Your task to perform on an android device: turn off priority inbox in the gmail app Image 0: 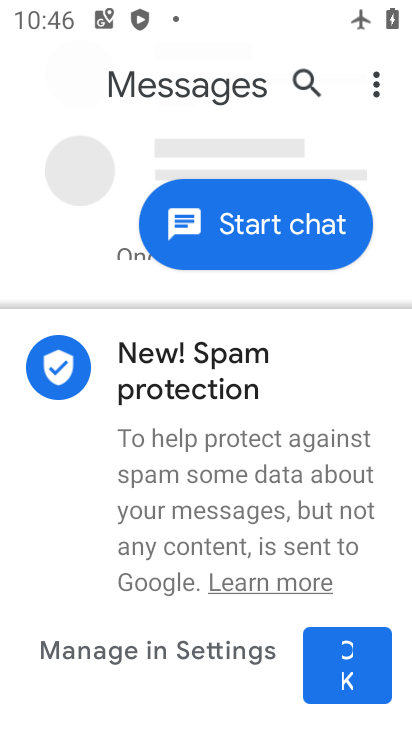
Step 0: press home button
Your task to perform on an android device: turn off priority inbox in the gmail app Image 1: 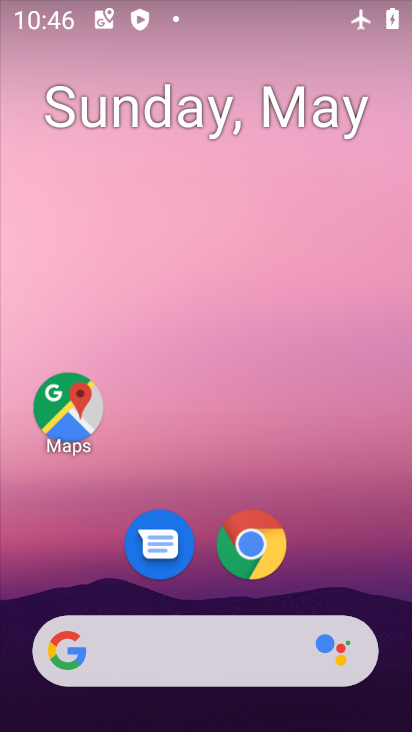
Step 1: drag from (344, 514) to (341, 257)
Your task to perform on an android device: turn off priority inbox in the gmail app Image 2: 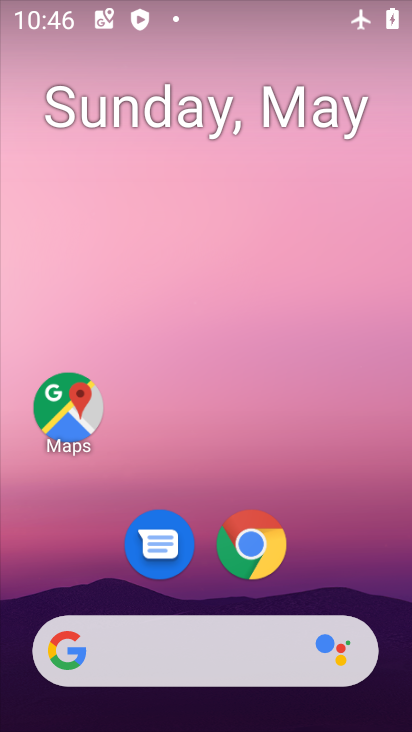
Step 2: drag from (322, 581) to (320, 317)
Your task to perform on an android device: turn off priority inbox in the gmail app Image 3: 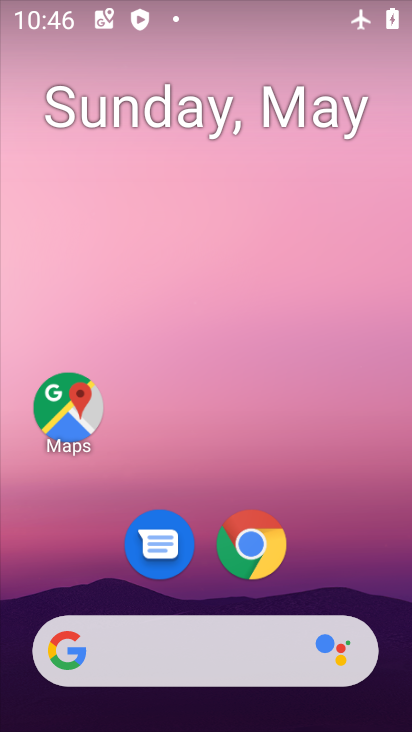
Step 3: drag from (306, 577) to (294, 344)
Your task to perform on an android device: turn off priority inbox in the gmail app Image 4: 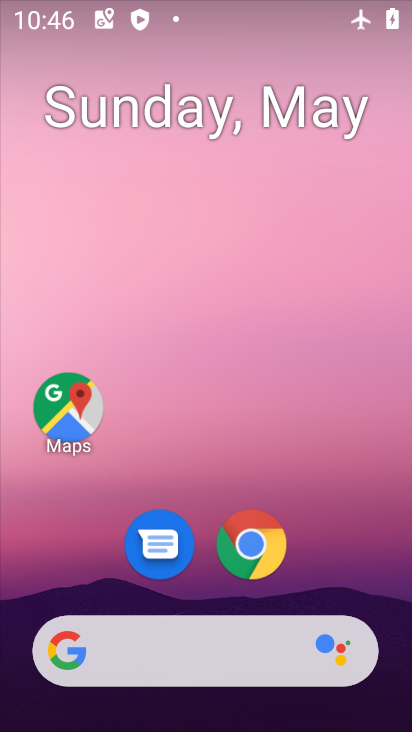
Step 4: drag from (264, 473) to (264, 319)
Your task to perform on an android device: turn off priority inbox in the gmail app Image 5: 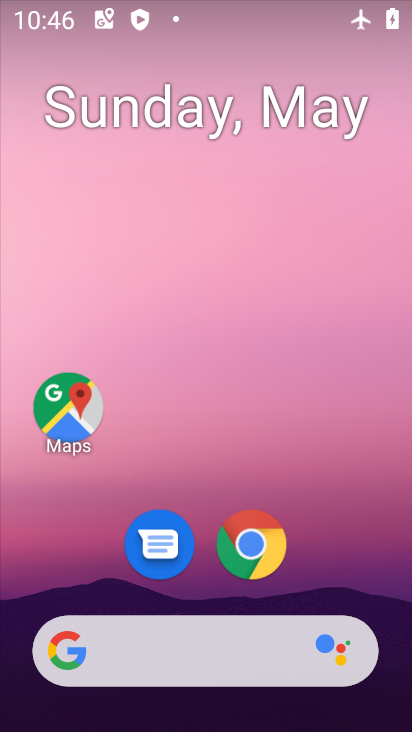
Step 5: click (259, 144)
Your task to perform on an android device: turn off priority inbox in the gmail app Image 6: 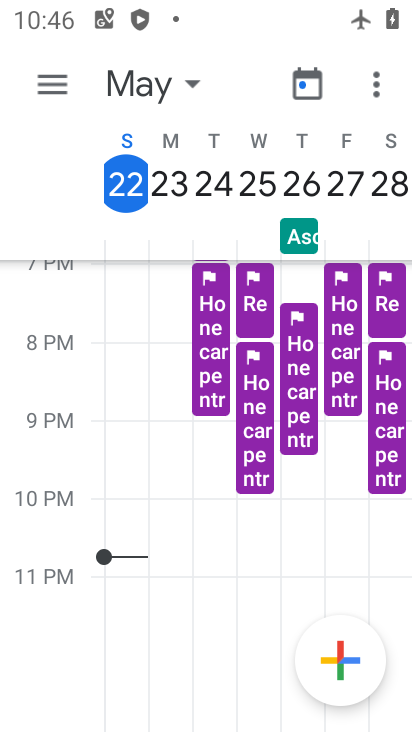
Step 6: drag from (279, 621) to (329, 285)
Your task to perform on an android device: turn off priority inbox in the gmail app Image 7: 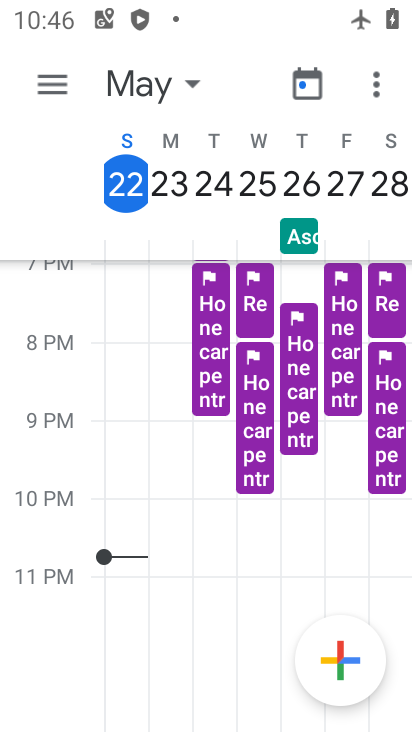
Step 7: press home button
Your task to perform on an android device: turn off priority inbox in the gmail app Image 8: 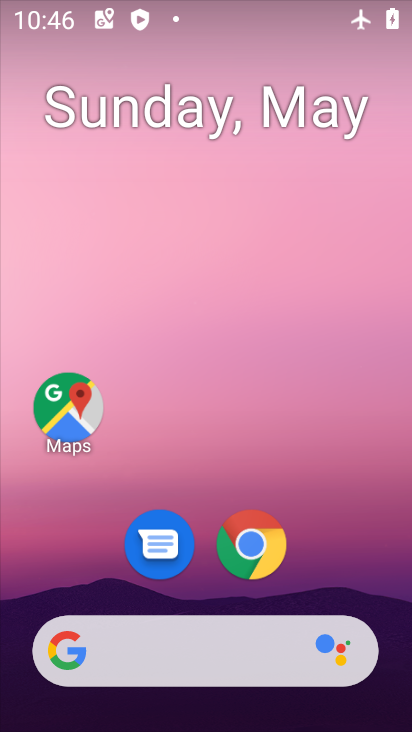
Step 8: drag from (293, 577) to (295, 305)
Your task to perform on an android device: turn off priority inbox in the gmail app Image 9: 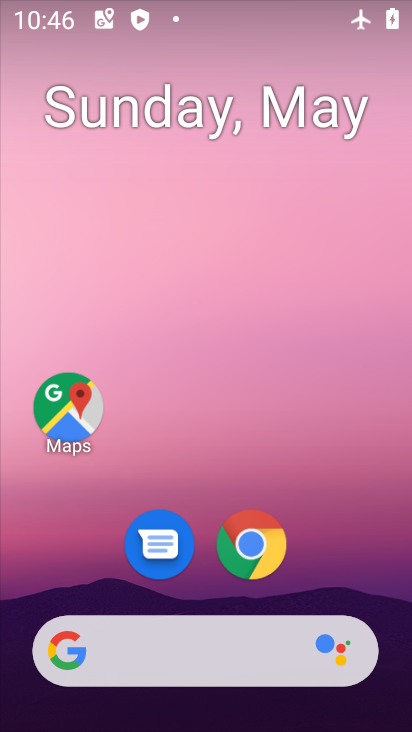
Step 9: drag from (302, 583) to (303, 304)
Your task to perform on an android device: turn off priority inbox in the gmail app Image 10: 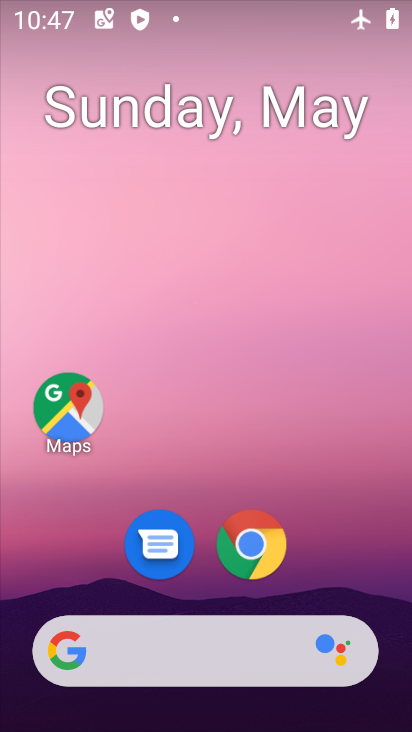
Step 10: drag from (323, 587) to (336, 244)
Your task to perform on an android device: turn off priority inbox in the gmail app Image 11: 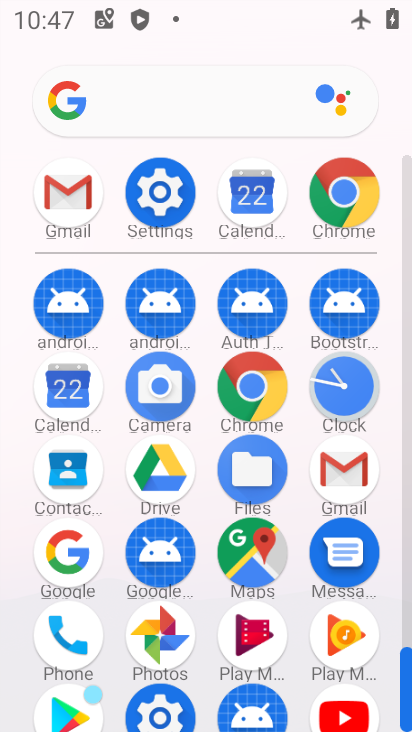
Step 11: click (328, 463)
Your task to perform on an android device: turn off priority inbox in the gmail app Image 12: 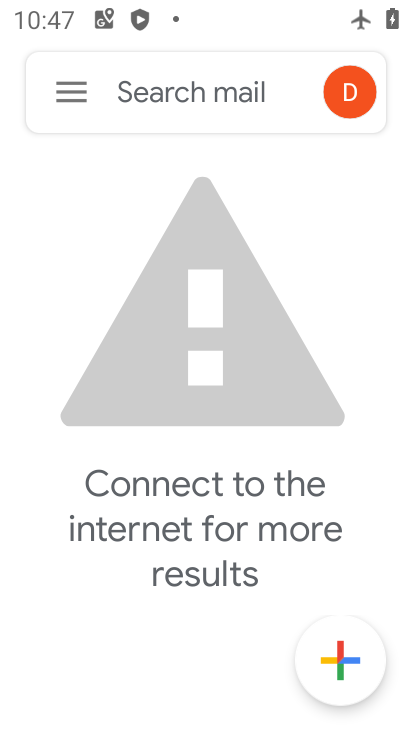
Step 12: click (83, 88)
Your task to perform on an android device: turn off priority inbox in the gmail app Image 13: 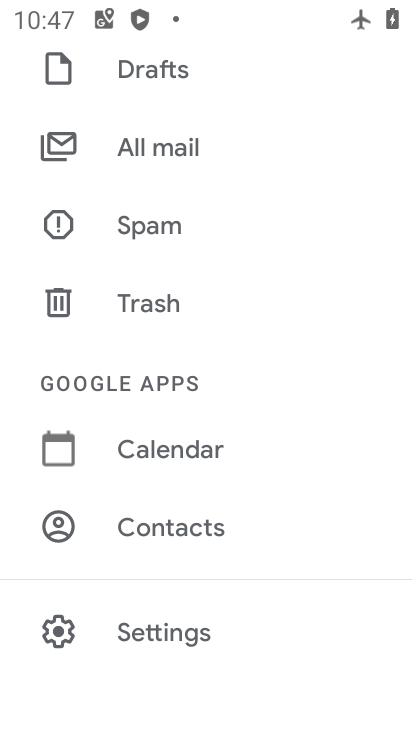
Step 13: click (197, 616)
Your task to perform on an android device: turn off priority inbox in the gmail app Image 14: 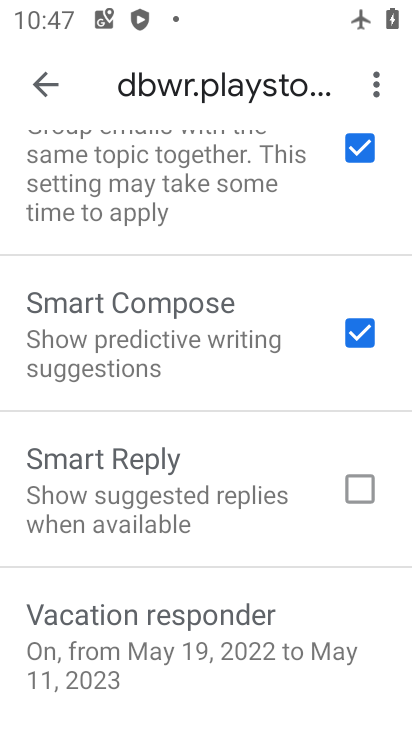
Step 14: drag from (235, 210) to (207, 713)
Your task to perform on an android device: turn off priority inbox in the gmail app Image 15: 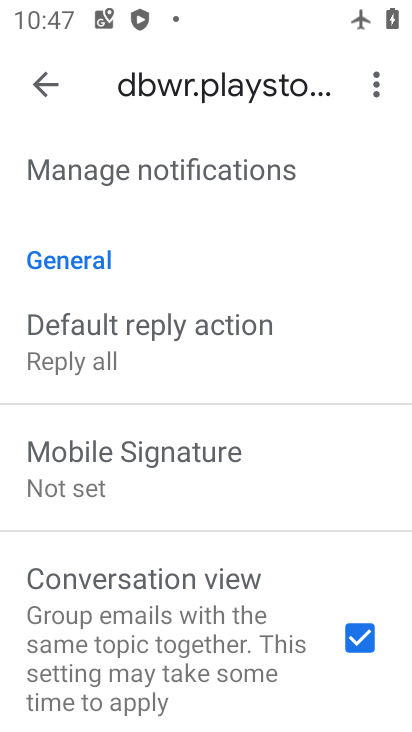
Step 15: drag from (266, 315) to (254, 669)
Your task to perform on an android device: turn off priority inbox in the gmail app Image 16: 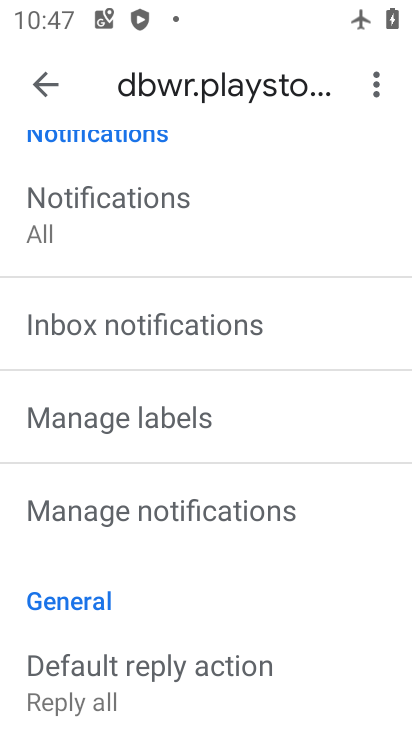
Step 16: drag from (163, 150) to (156, 507)
Your task to perform on an android device: turn off priority inbox in the gmail app Image 17: 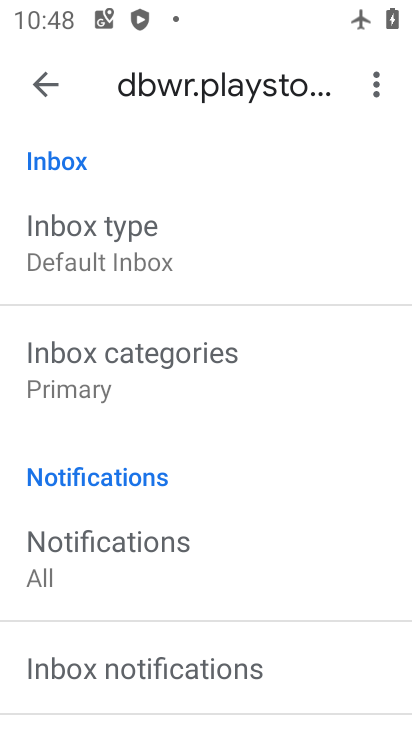
Step 17: click (148, 273)
Your task to perform on an android device: turn off priority inbox in the gmail app Image 18: 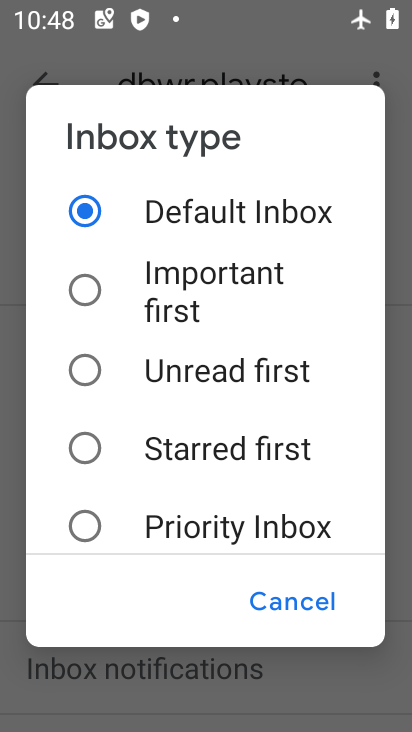
Step 18: task complete